Your task to perform on an android device: Open Google Image 0: 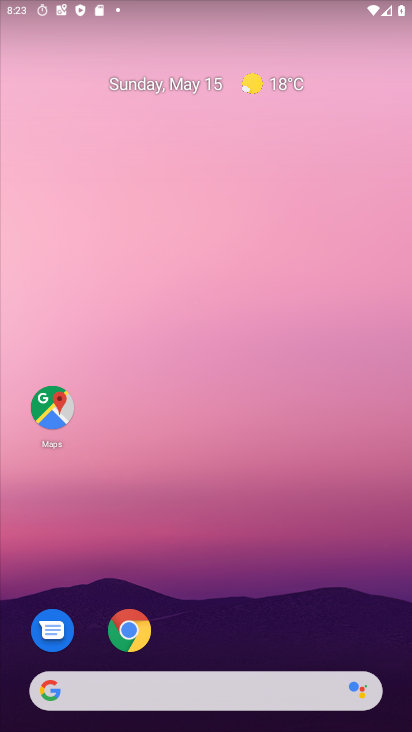
Step 0: click (342, 51)
Your task to perform on an android device: Open Google Image 1: 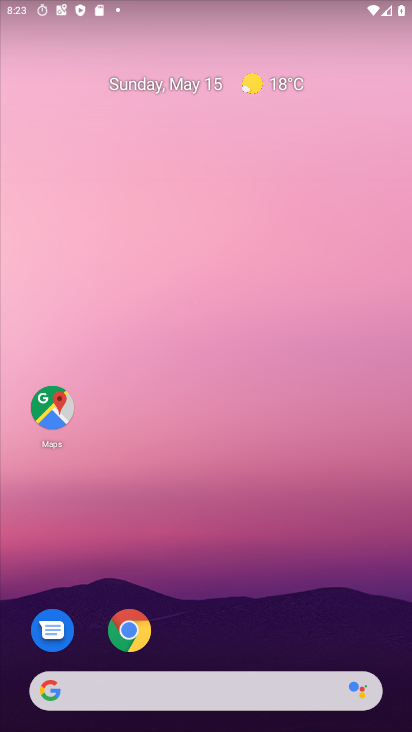
Step 1: drag from (189, 629) to (217, 78)
Your task to perform on an android device: Open Google Image 2: 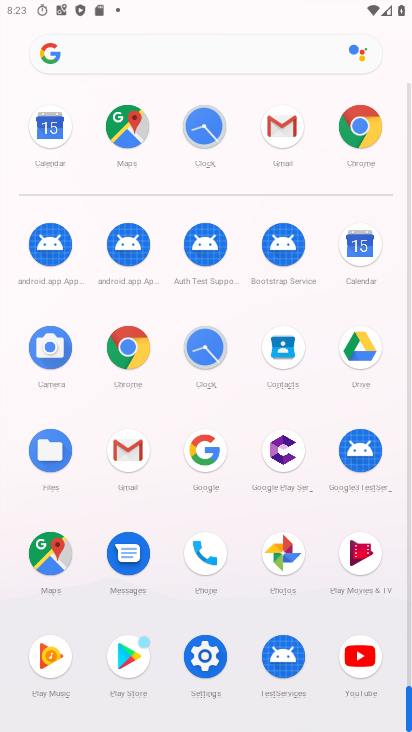
Step 2: drag from (230, 599) to (281, 134)
Your task to perform on an android device: Open Google Image 3: 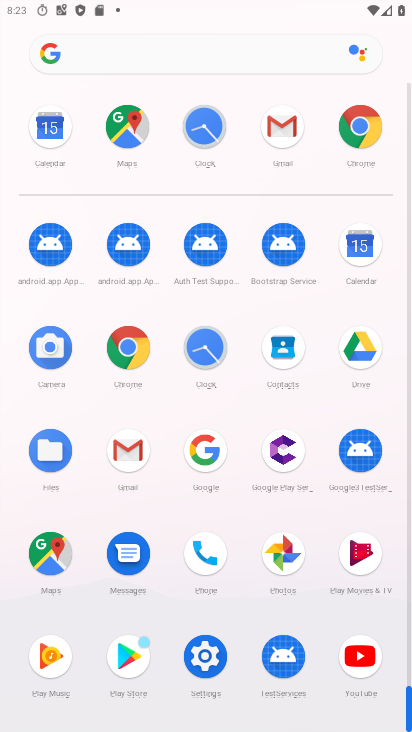
Step 3: click (200, 448)
Your task to perform on an android device: Open Google Image 4: 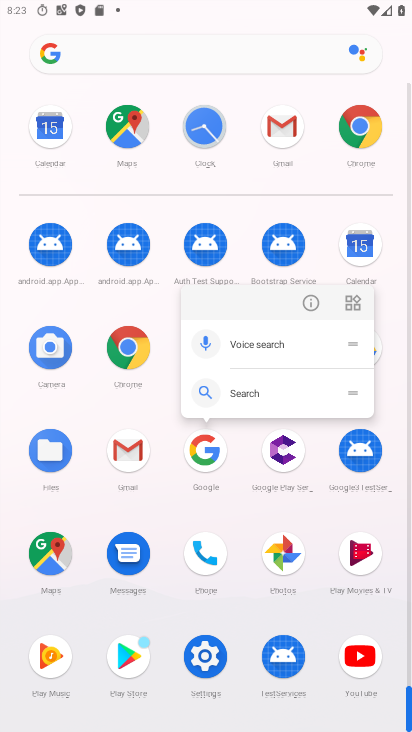
Step 4: click (306, 303)
Your task to perform on an android device: Open Google Image 5: 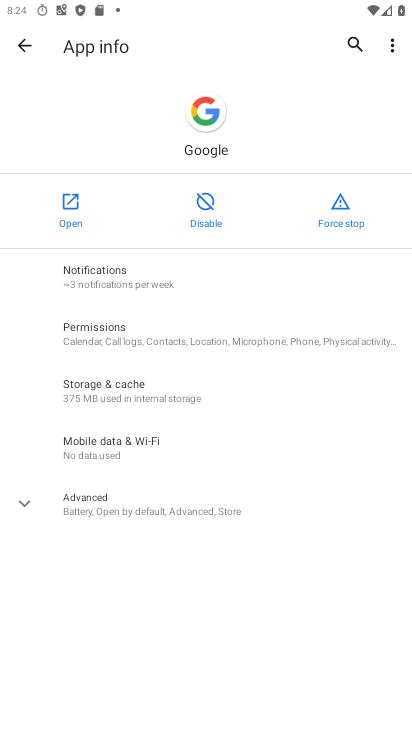
Step 5: click (72, 198)
Your task to perform on an android device: Open Google Image 6: 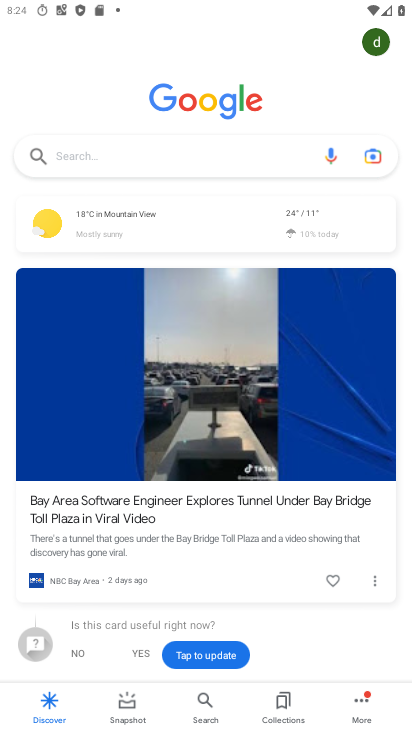
Step 6: drag from (243, 588) to (287, 292)
Your task to perform on an android device: Open Google Image 7: 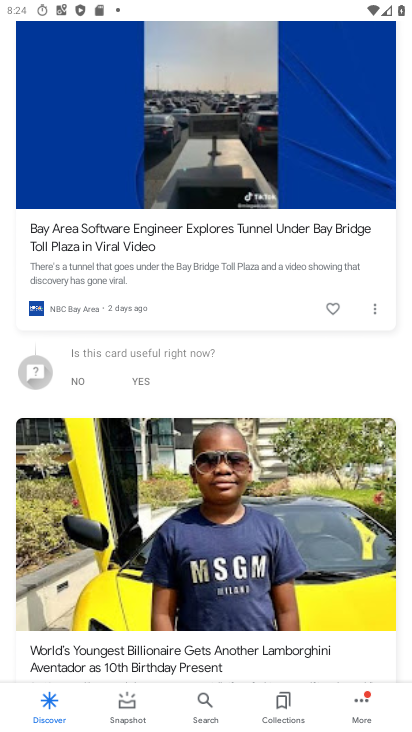
Step 7: drag from (243, 311) to (330, 730)
Your task to perform on an android device: Open Google Image 8: 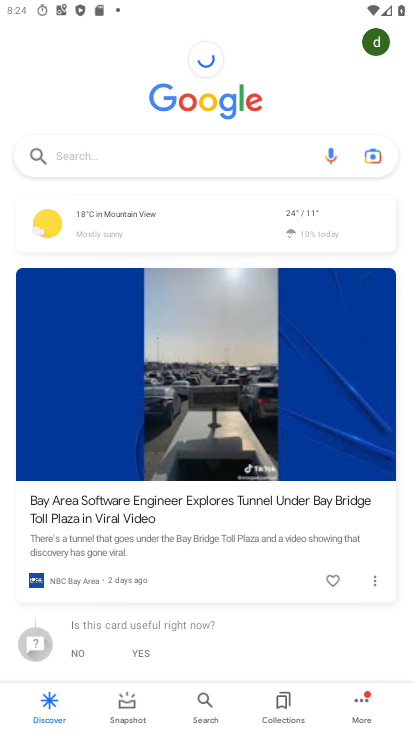
Step 8: click (280, 346)
Your task to perform on an android device: Open Google Image 9: 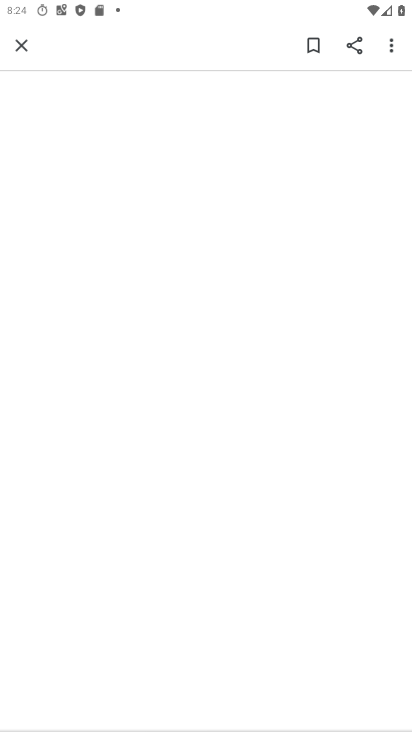
Step 9: task complete